Your task to perform on an android device: Go to calendar. Show me events next week Image 0: 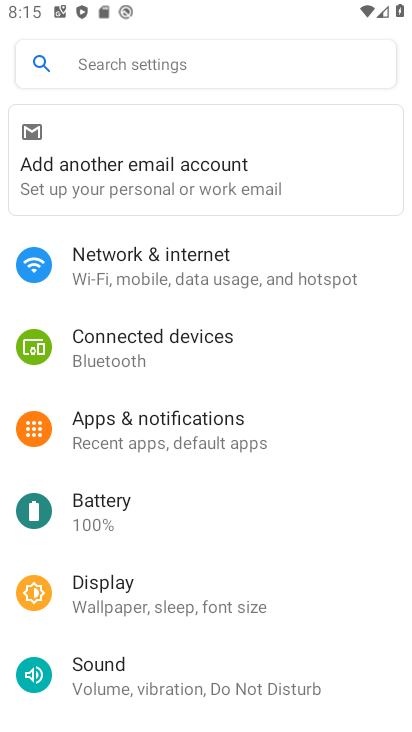
Step 0: press home button
Your task to perform on an android device: Go to calendar. Show me events next week Image 1: 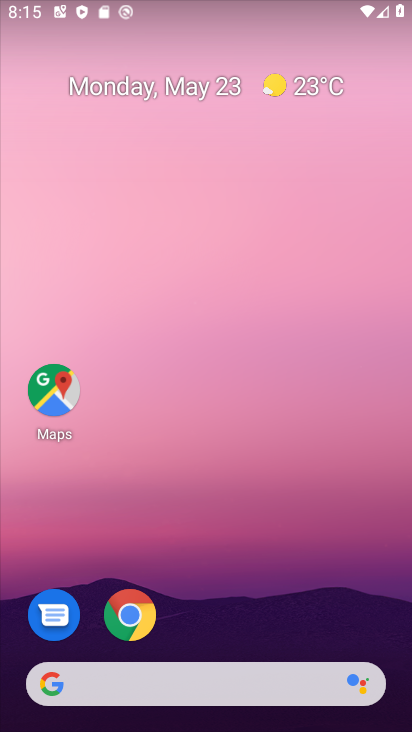
Step 1: drag from (229, 585) to (193, 142)
Your task to perform on an android device: Go to calendar. Show me events next week Image 2: 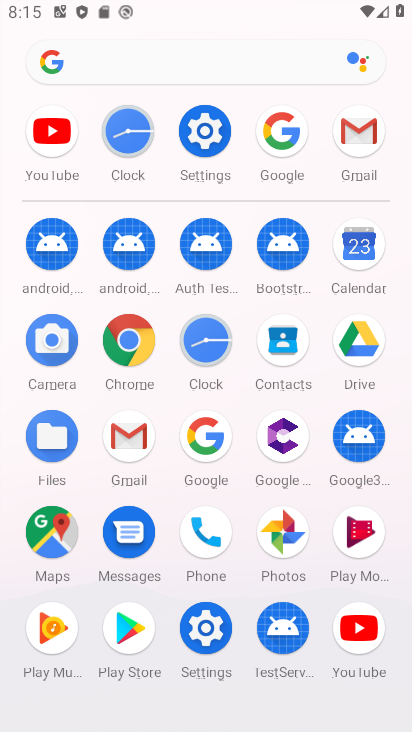
Step 2: click (359, 247)
Your task to perform on an android device: Go to calendar. Show me events next week Image 3: 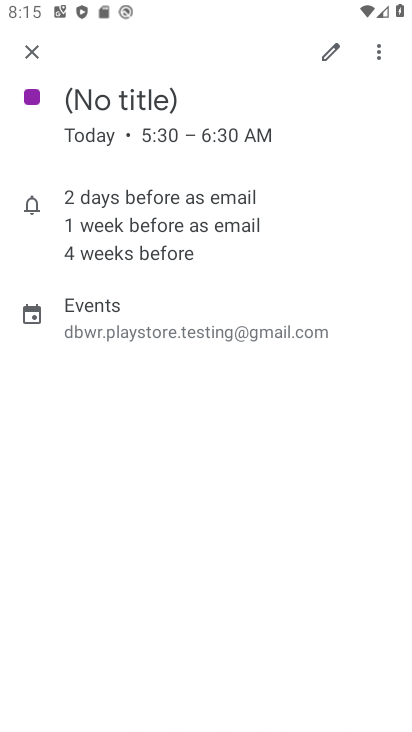
Step 3: click (32, 52)
Your task to perform on an android device: Go to calendar. Show me events next week Image 4: 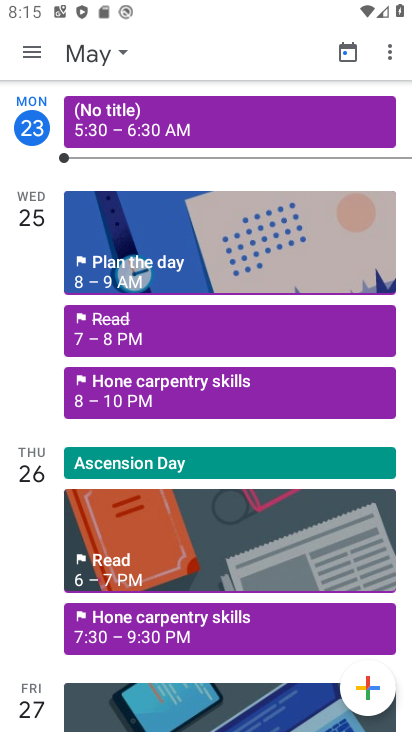
Step 4: click (121, 52)
Your task to perform on an android device: Go to calendar. Show me events next week Image 5: 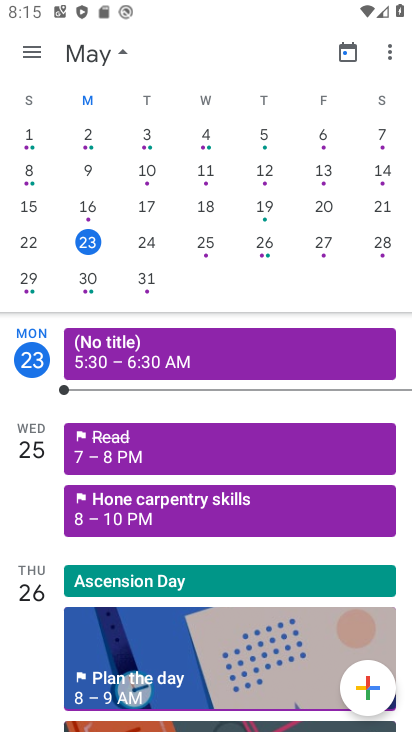
Step 5: click (87, 277)
Your task to perform on an android device: Go to calendar. Show me events next week Image 6: 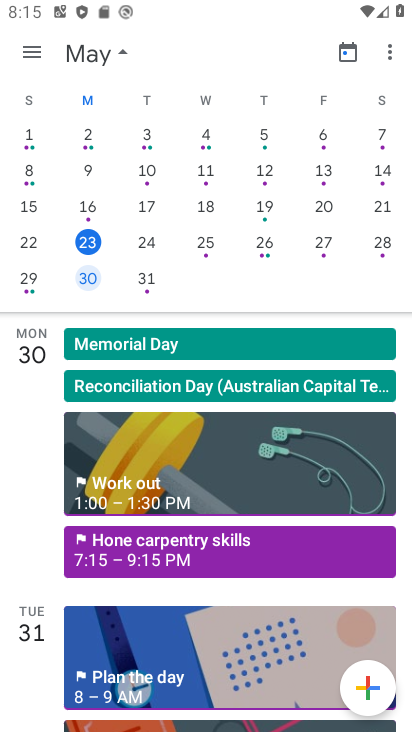
Step 6: click (290, 569)
Your task to perform on an android device: Go to calendar. Show me events next week Image 7: 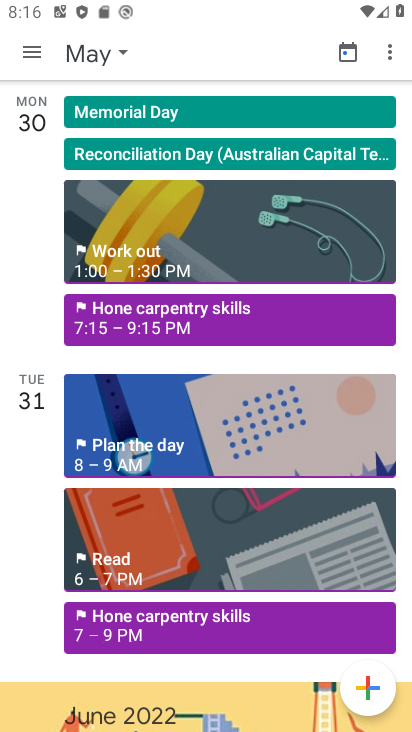
Step 7: task complete